Your task to perform on an android device: Open Google Chrome Image 0: 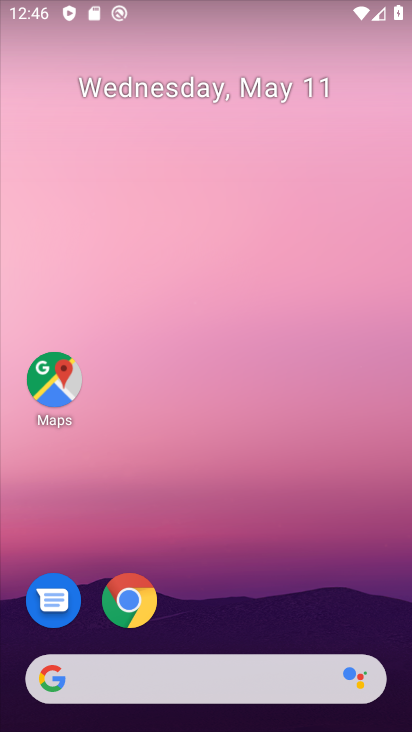
Step 0: drag from (268, 592) to (246, 302)
Your task to perform on an android device: Open Google Chrome Image 1: 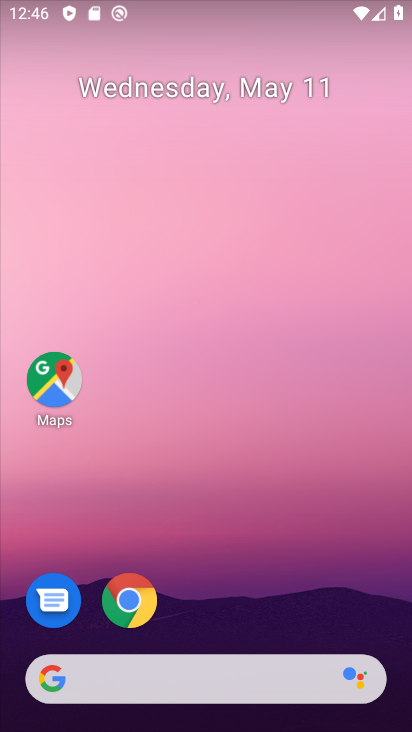
Step 1: drag from (237, 640) to (276, 298)
Your task to perform on an android device: Open Google Chrome Image 2: 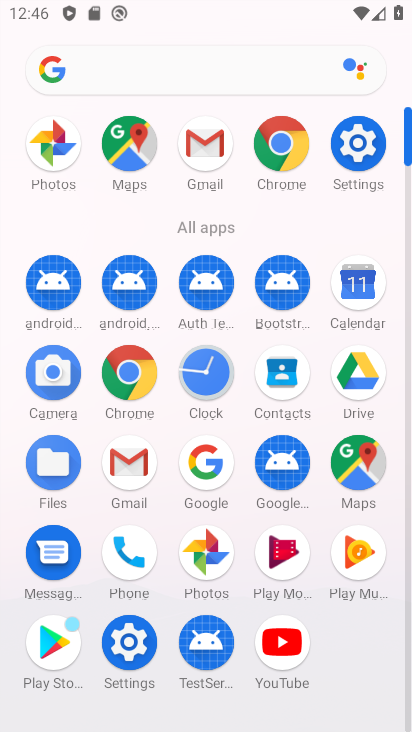
Step 2: click (277, 143)
Your task to perform on an android device: Open Google Chrome Image 3: 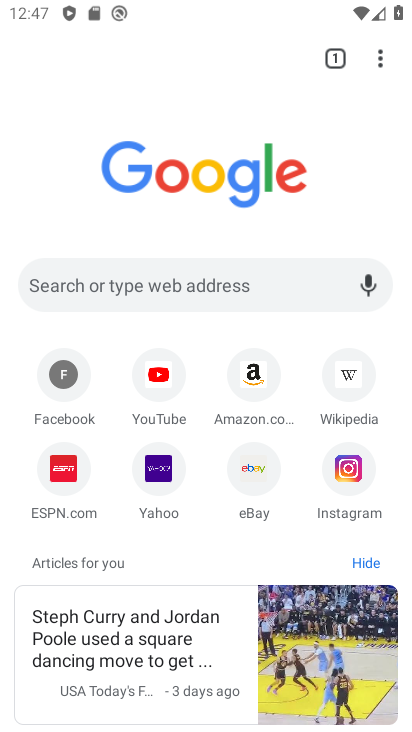
Step 3: task complete